Your task to perform on an android device: Go to sound settings Image 0: 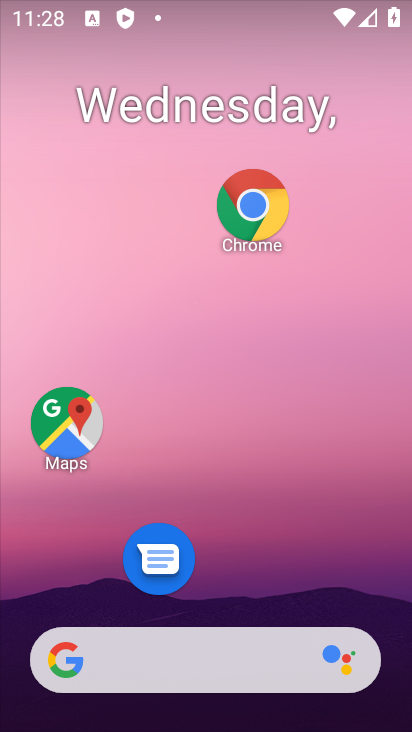
Step 0: drag from (256, 632) to (283, 51)
Your task to perform on an android device: Go to sound settings Image 1: 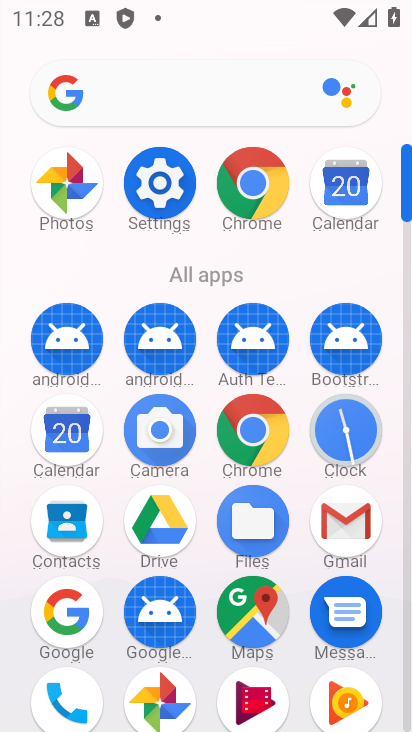
Step 1: drag from (192, 622) to (236, 175)
Your task to perform on an android device: Go to sound settings Image 2: 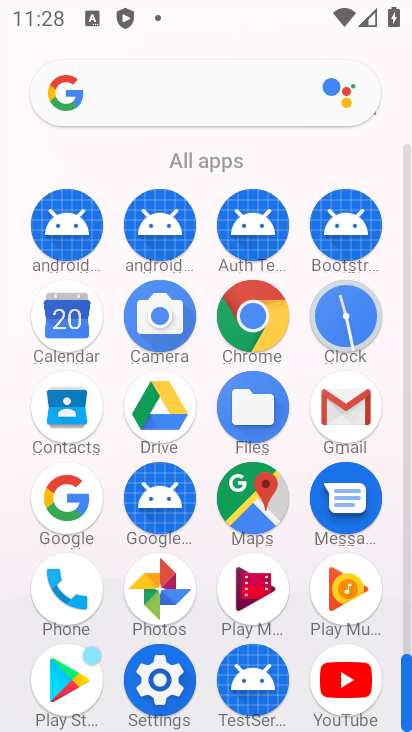
Step 2: click (174, 680)
Your task to perform on an android device: Go to sound settings Image 3: 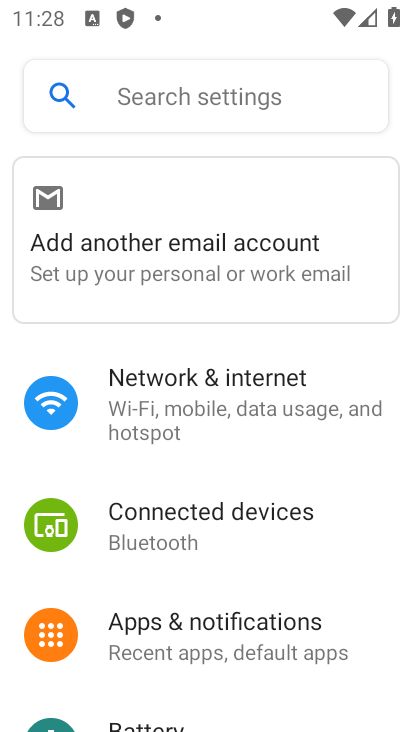
Step 3: drag from (217, 709) to (254, 154)
Your task to perform on an android device: Go to sound settings Image 4: 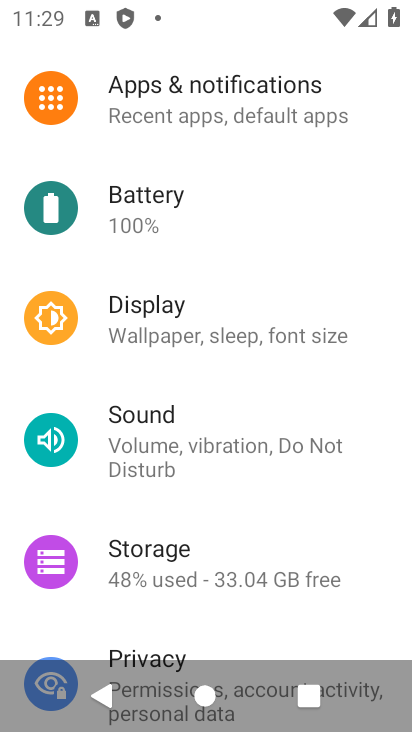
Step 4: click (177, 452)
Your task to perform on an android device: Go to sound settings Image 5: 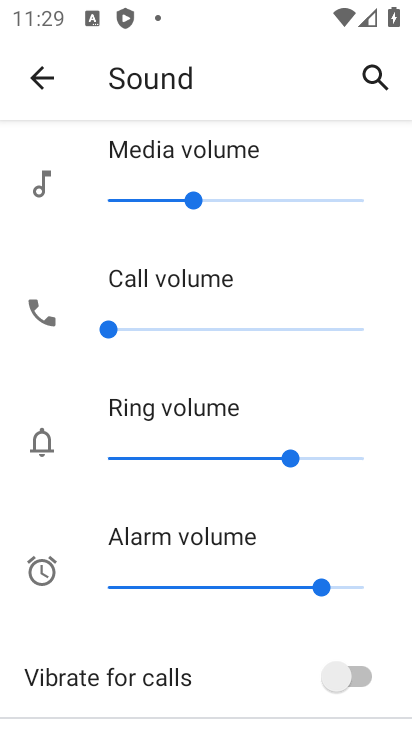
Step 5: task complete